Your task to perform on an android device: Show me popular games on the Play Store Image 0: 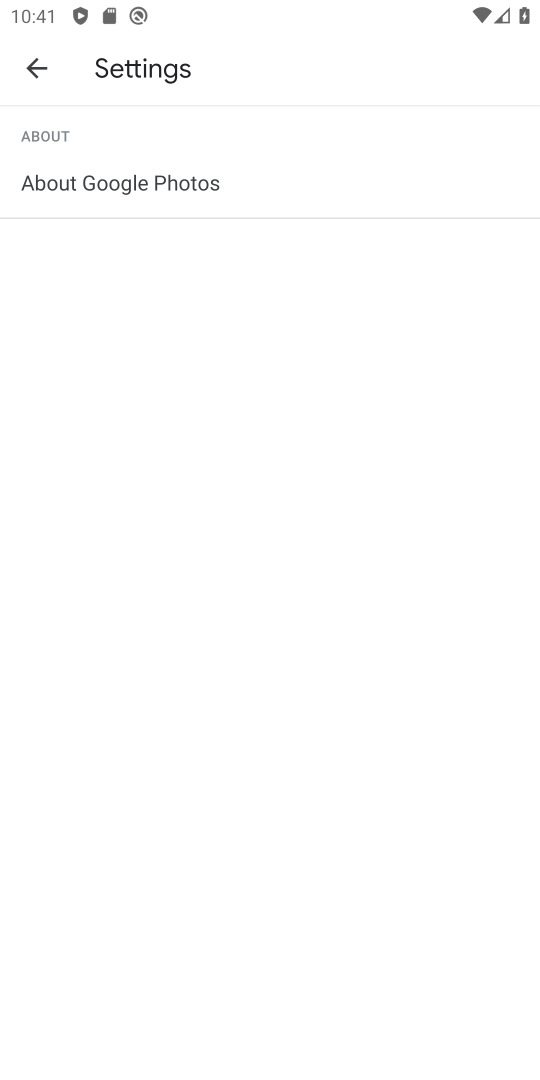
Step 0: press home button
Your task to perform on an android device: Show me popular games on the Play Store Image 1: 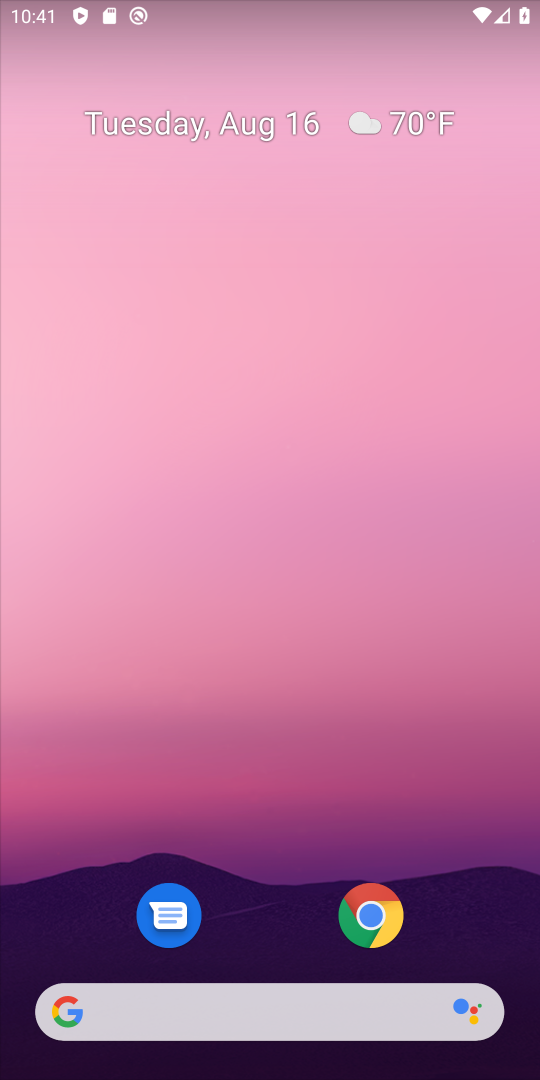
Step 1: drag from (266, 961) to (176, 1)
Your task to perform on an android device: Show me popular games on the Play Store Image 2: 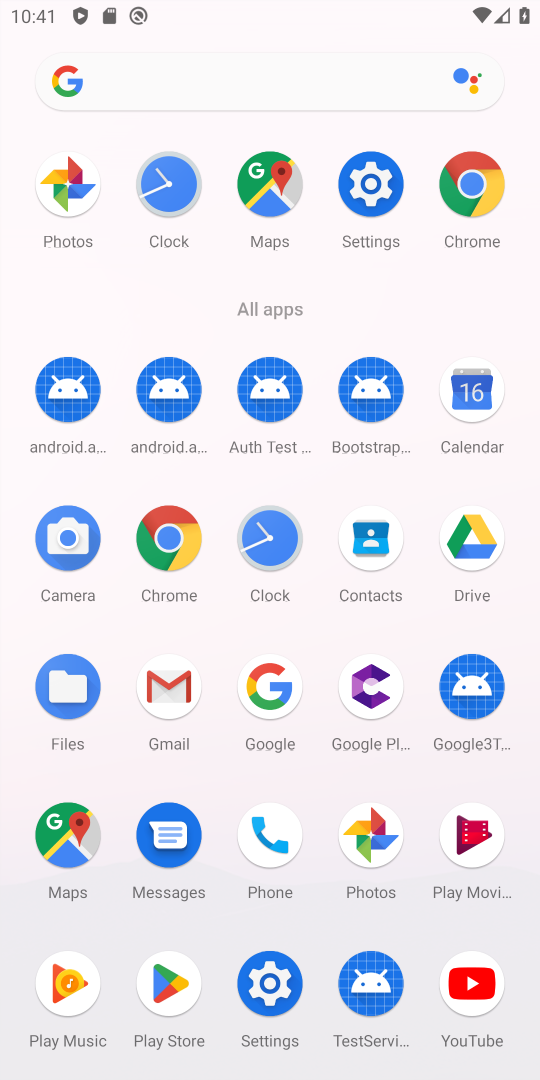
Step 2: click (177, 988)
Your task to perform on an android device: Show me popular games on the Play Store Image 3: 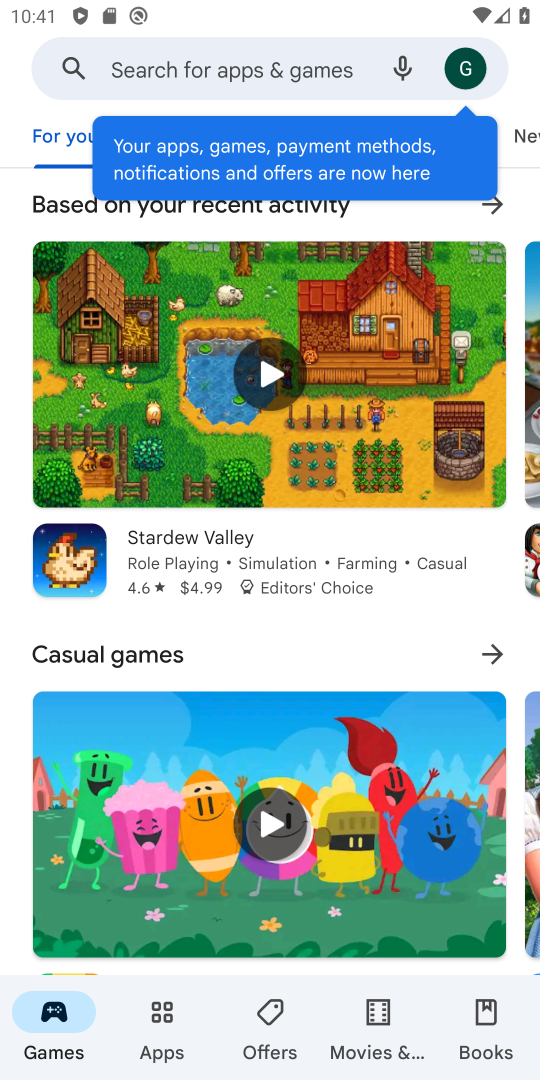
Step 3: drag from (107, 678) to (207, 64)
Your task to perform on an android device: Show me popular games on the Play Store Image 4: 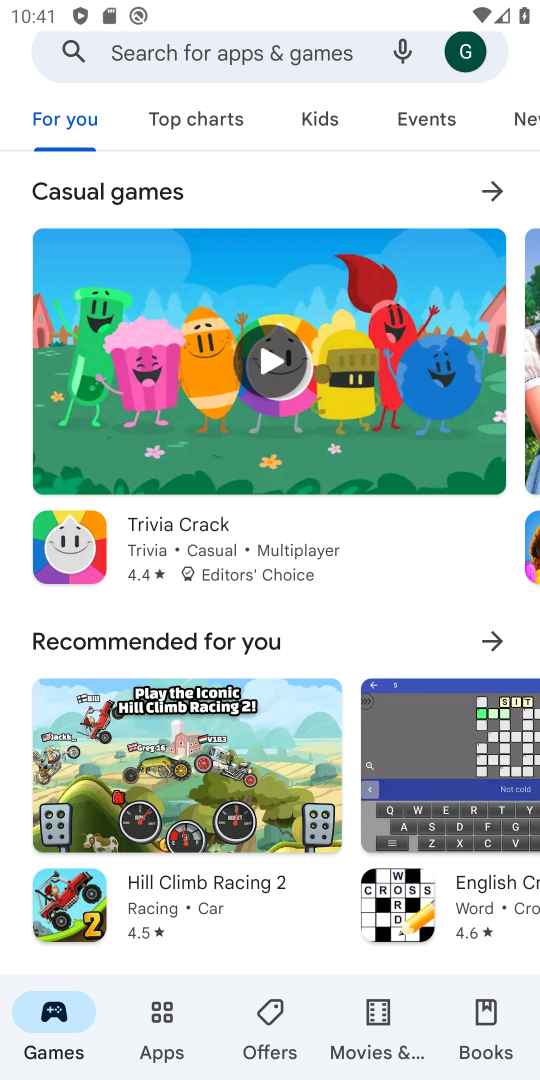
Step 4: drag from (153, 839) to (53, 207)
Your task to perform on an android device: Show me popular games on the Play Store Image 5: 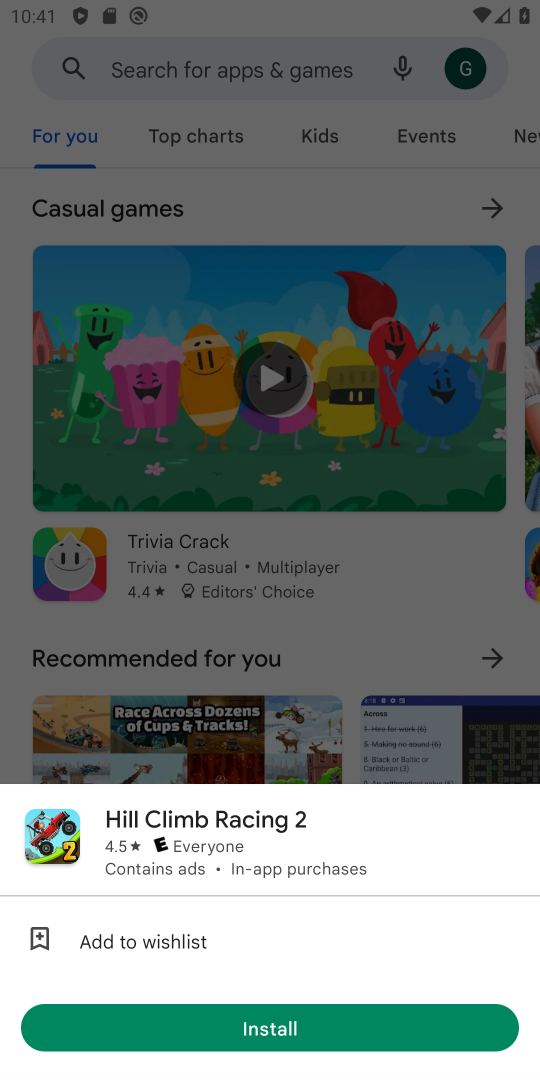
Step 5: click (13, 478)
Your task to perform on an android device: Show me popular games on the Play Store Image 6: 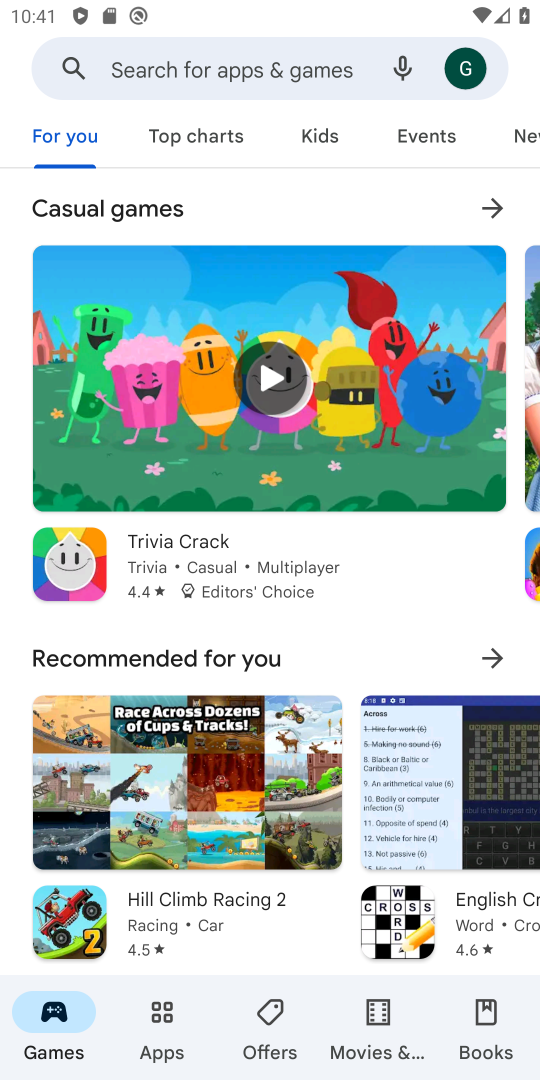
Step 6: task complete